Your task to perform on an android device: remove spam from my inbox in the gmail app Image 0: 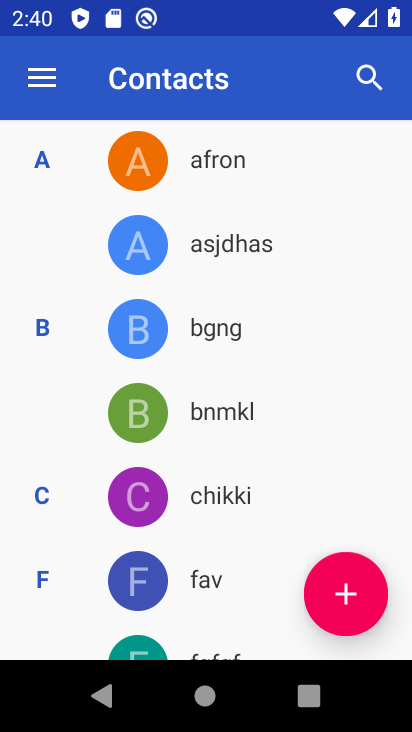
Step 0: press back button
Your task to perform on an android device: remove spam from my inbox in the gmail app Image 1: 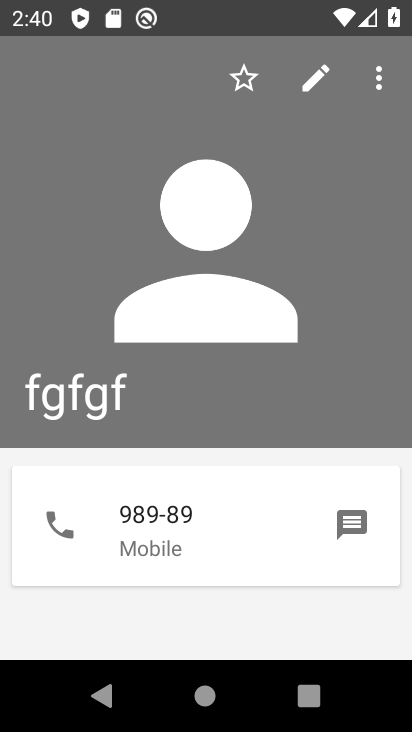
Step 1: press back button
Your task to perform on an android device: remove spam from my inbox in the gmail app Image 2: 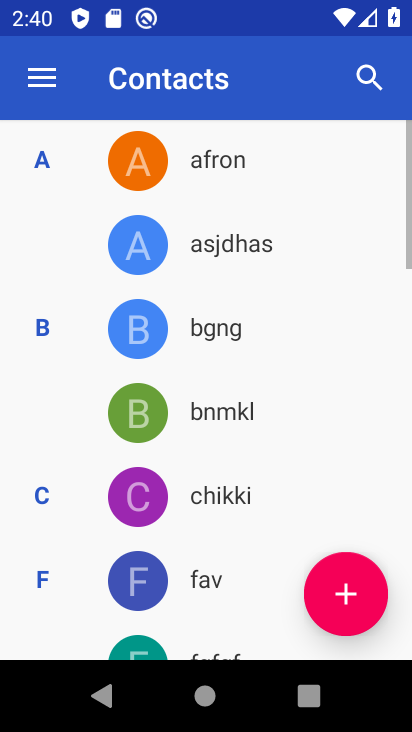
Step 2: press back button
Your task to perform on an android device: remove spam from my inbox in the gmail app Image 3: 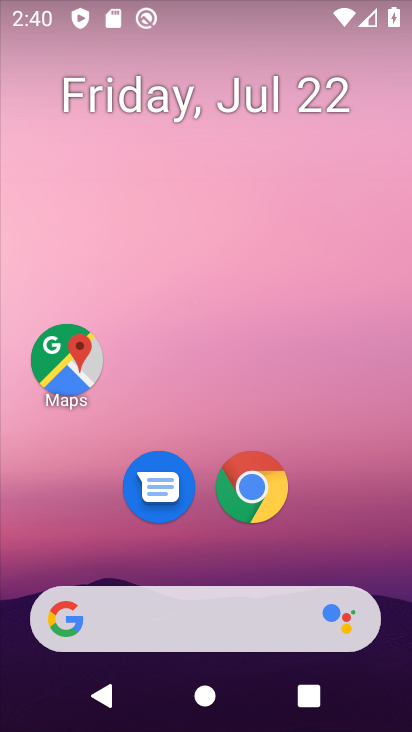
Step 3: drag from (157, 417) to (238, 25)
Your task to perform on an android device: remove spam from my inbox in the gmail app Image 4: 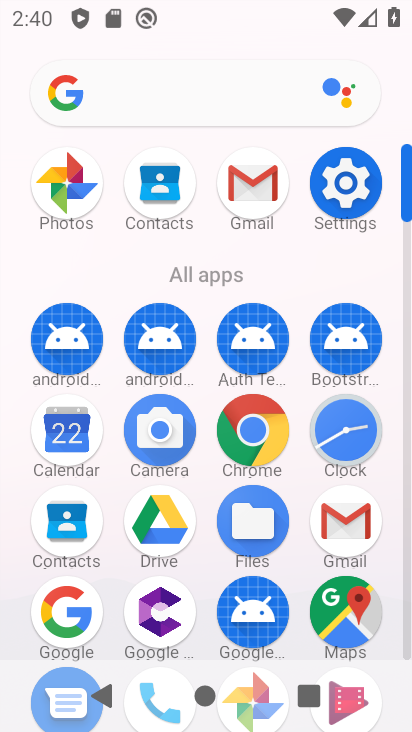
Step 4: click (258, 183)
Your task to perform on an android device: remove spam from my inbox in the gmail app Image 5: 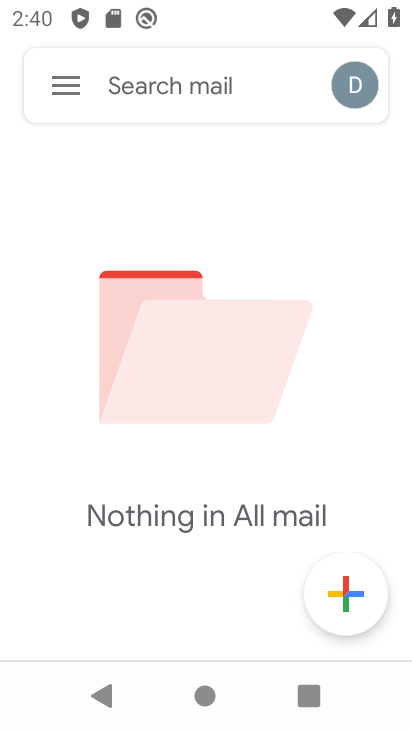
Step 5: click (65, 79)
Your task to perform on an android device: remove spam from my inbox in the gmail app Image 6: 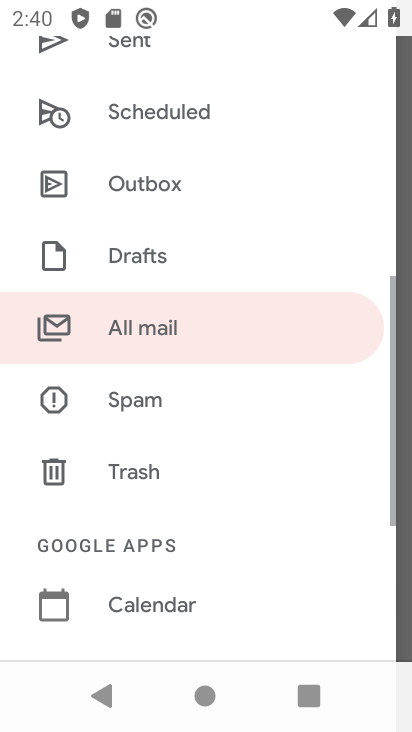
Step 6: click (142, 397)
Your task to perform on an android device: remove spam from my inbox in the gmail app Image 7: 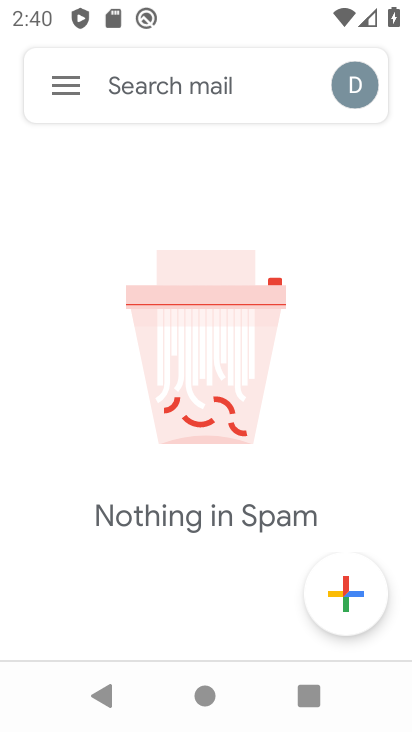
Step 7: task complete